Your task to perform on an android device: When is my next meeting? Image 0: 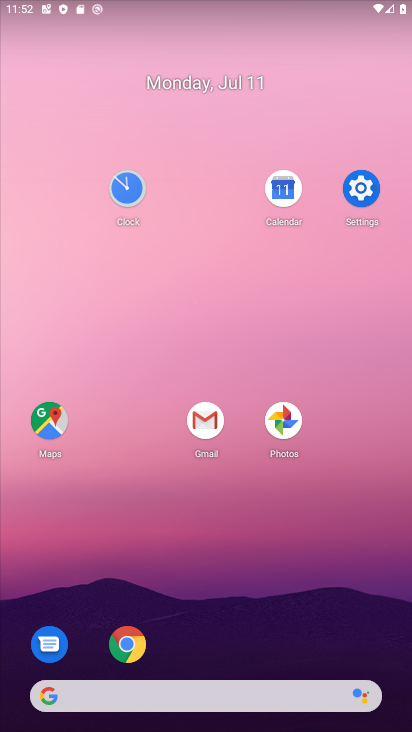
Step 0: click (282, 179)
Your task to perform on an android device: When is my next meeting? Image 1: 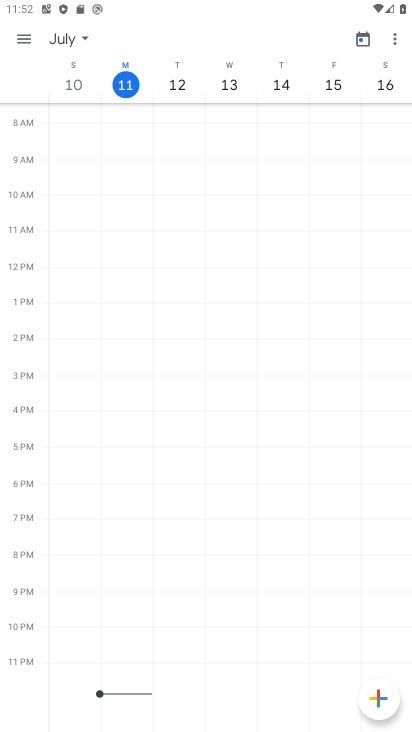
Step 1: click (179, 87)
Your task to perform on an android device: When is my next meeting? Image 2: 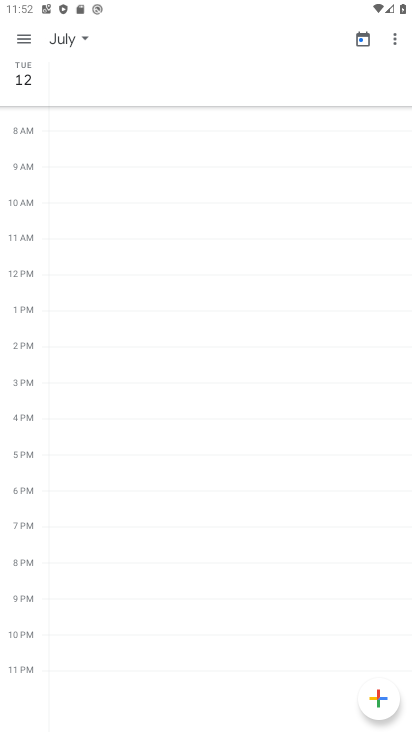
Step 2: task complete